Your task to perform on an android device: open app "Google Sheets" (install if not already installed) Image 0: 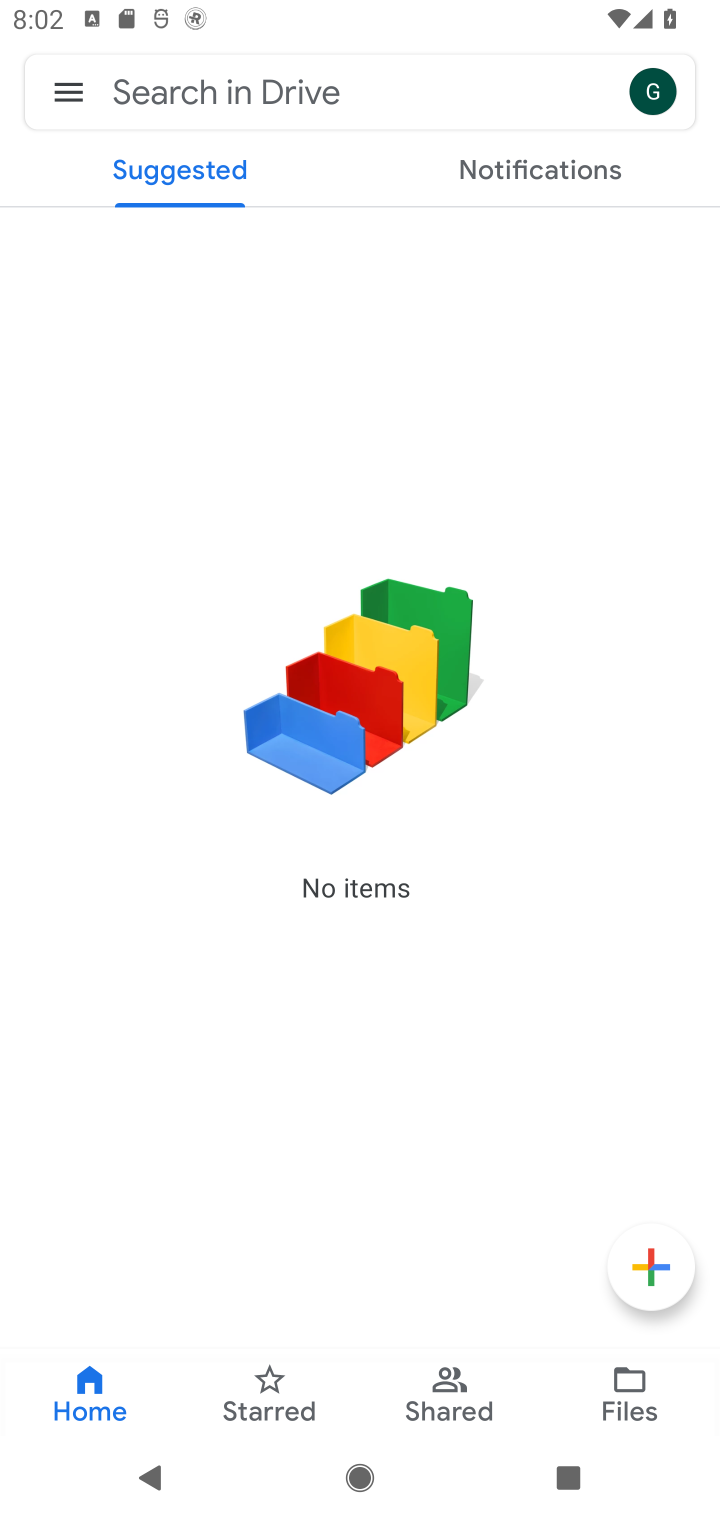
Step 0: press home button
Your task to perform on an android device: open app "Google Sheets" (install if not already installed) Image 1: 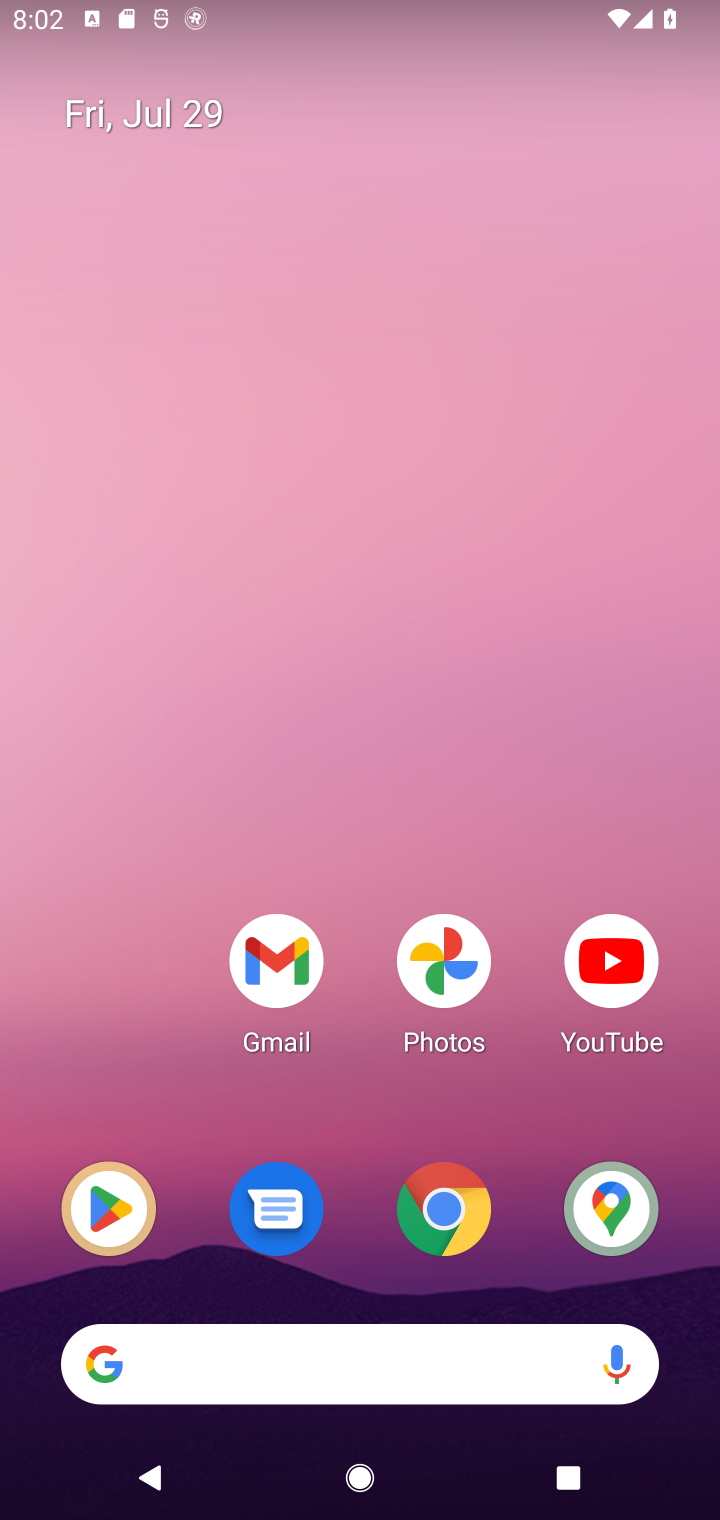
Step 1: click (118, 1210)
Your task to perform on an android device: open app "Google Sheets" (install if not already installed) Image 2: 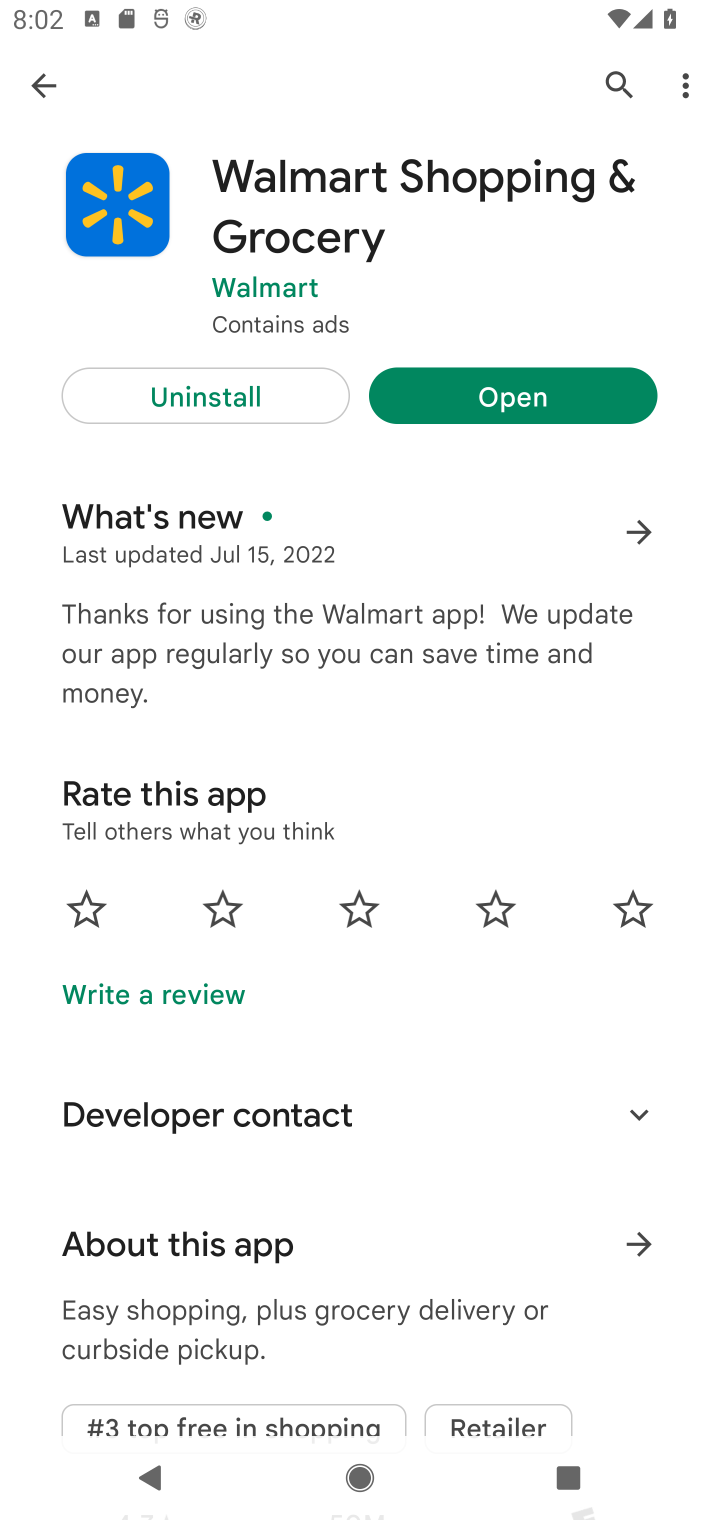
Step 2: click (602, 91)
Your task to perform on an android device: open app "Google Sheets" (install if not already installed) Image 3: 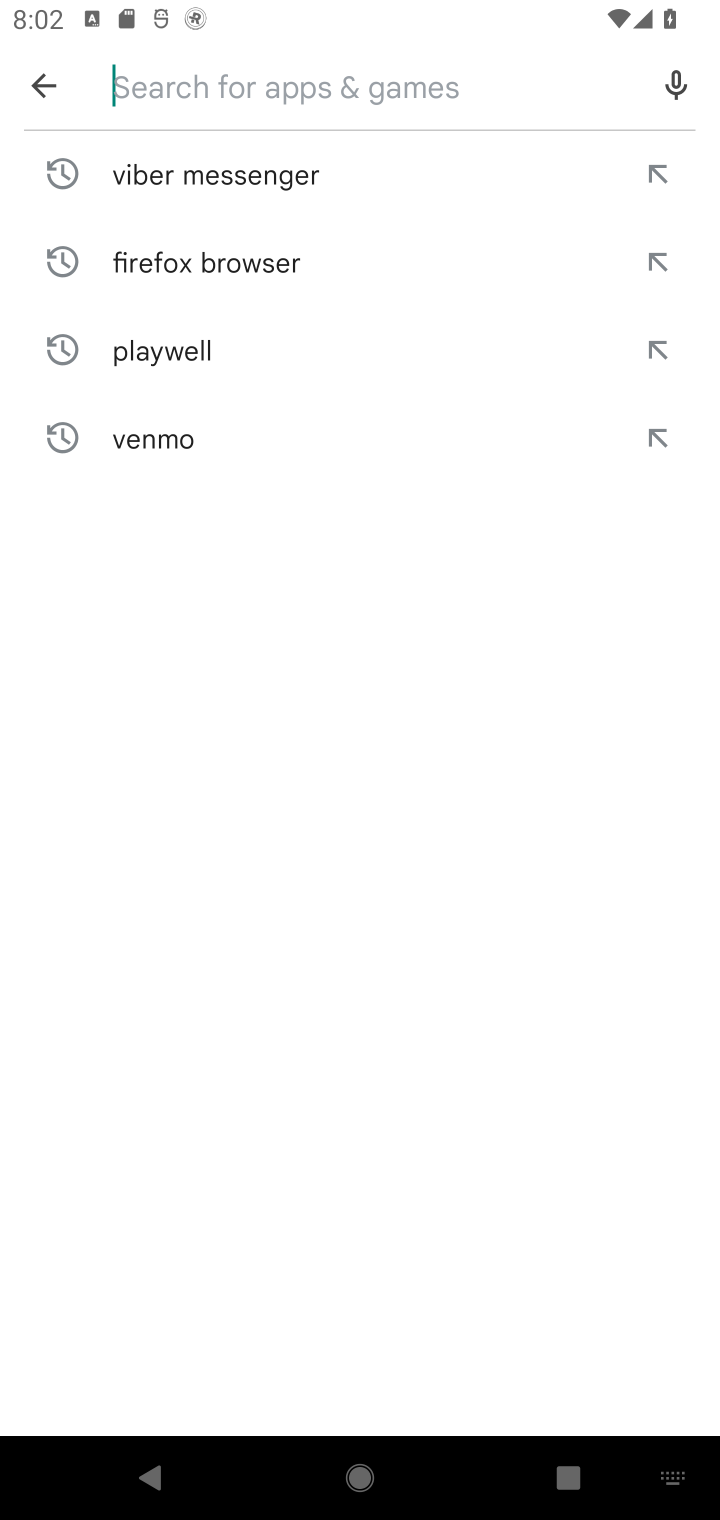
Step 3: click (419, 97)
Your task to perform on an android device: open app "Google Sheets" (install if not already installed) Image 4: 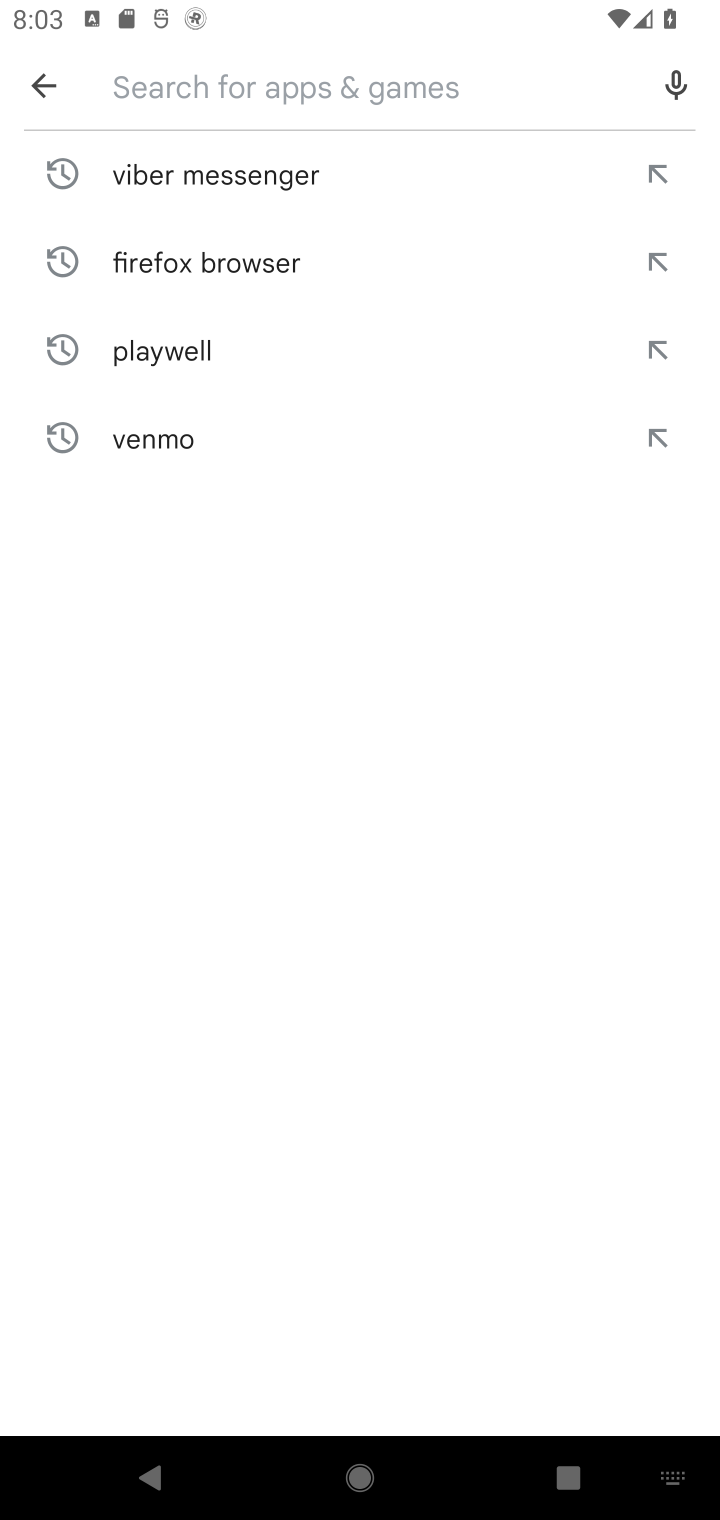
Step 4: type "Google Sheets"
Your task to perform on an android device: open app "Google Sheets" (install if not already installed) Image 5: 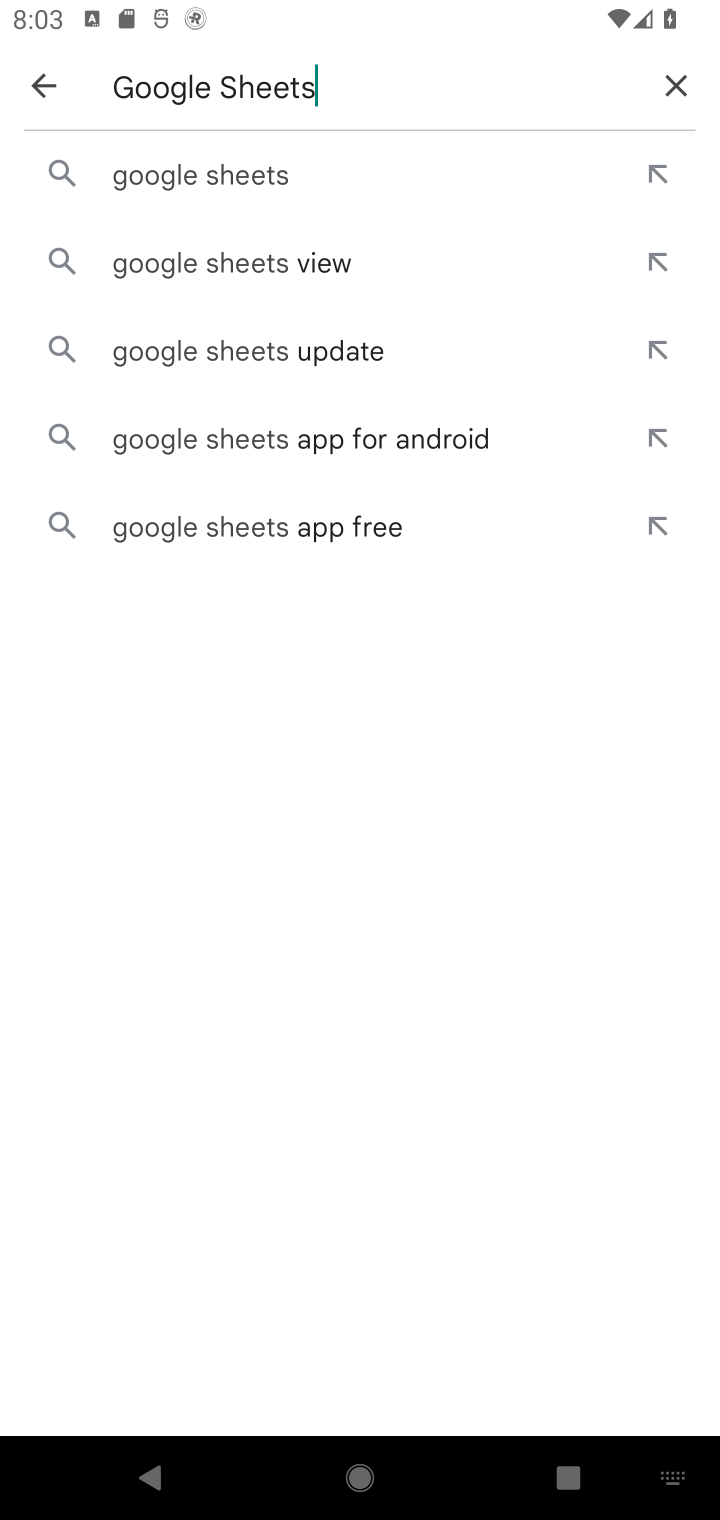
Step 5: click (242, 169)
Your task to perform on an android device: open app "Google Sheets" (install if not already installed) Image 6: 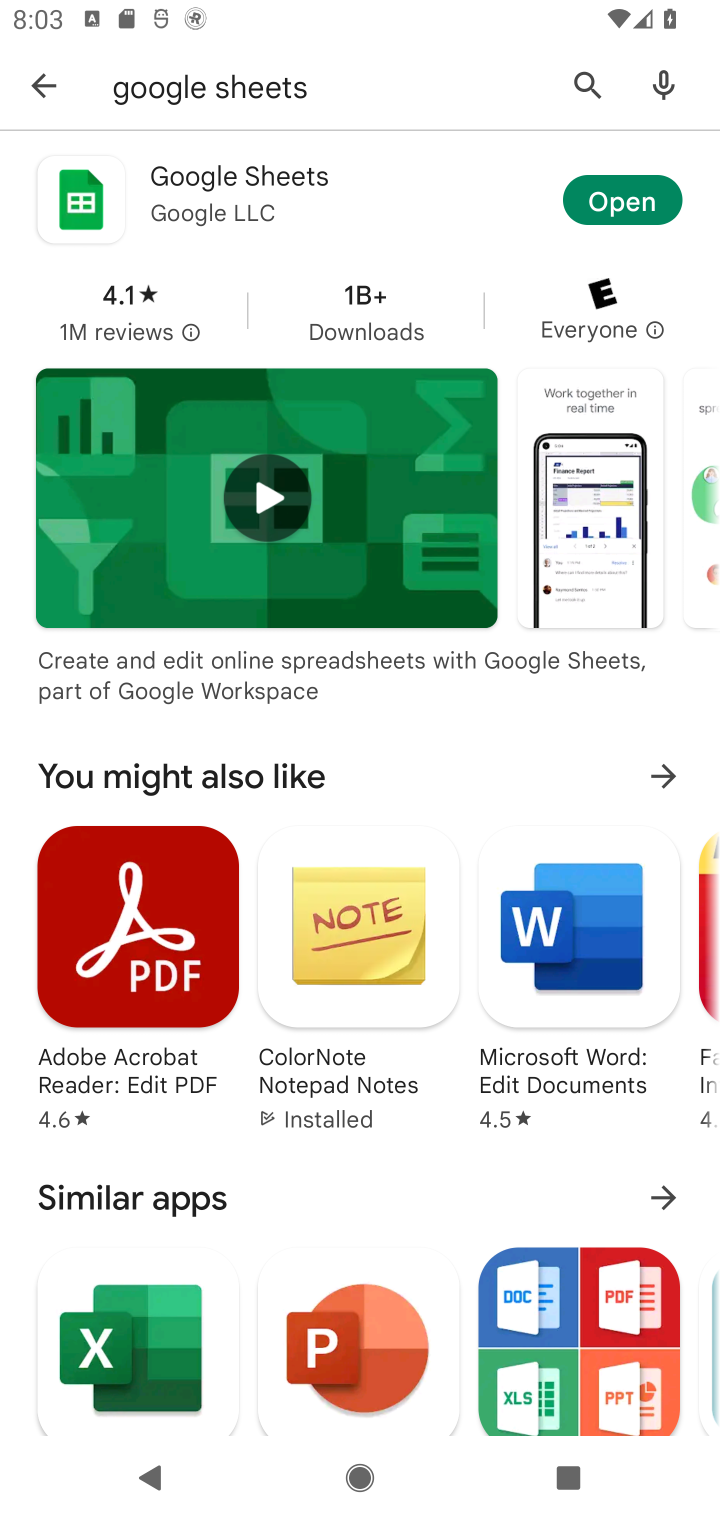
Step 6: click (590, 203)
Your task to perform on an android device: open app "Google Sheets" (install if not already installed) Image 7: 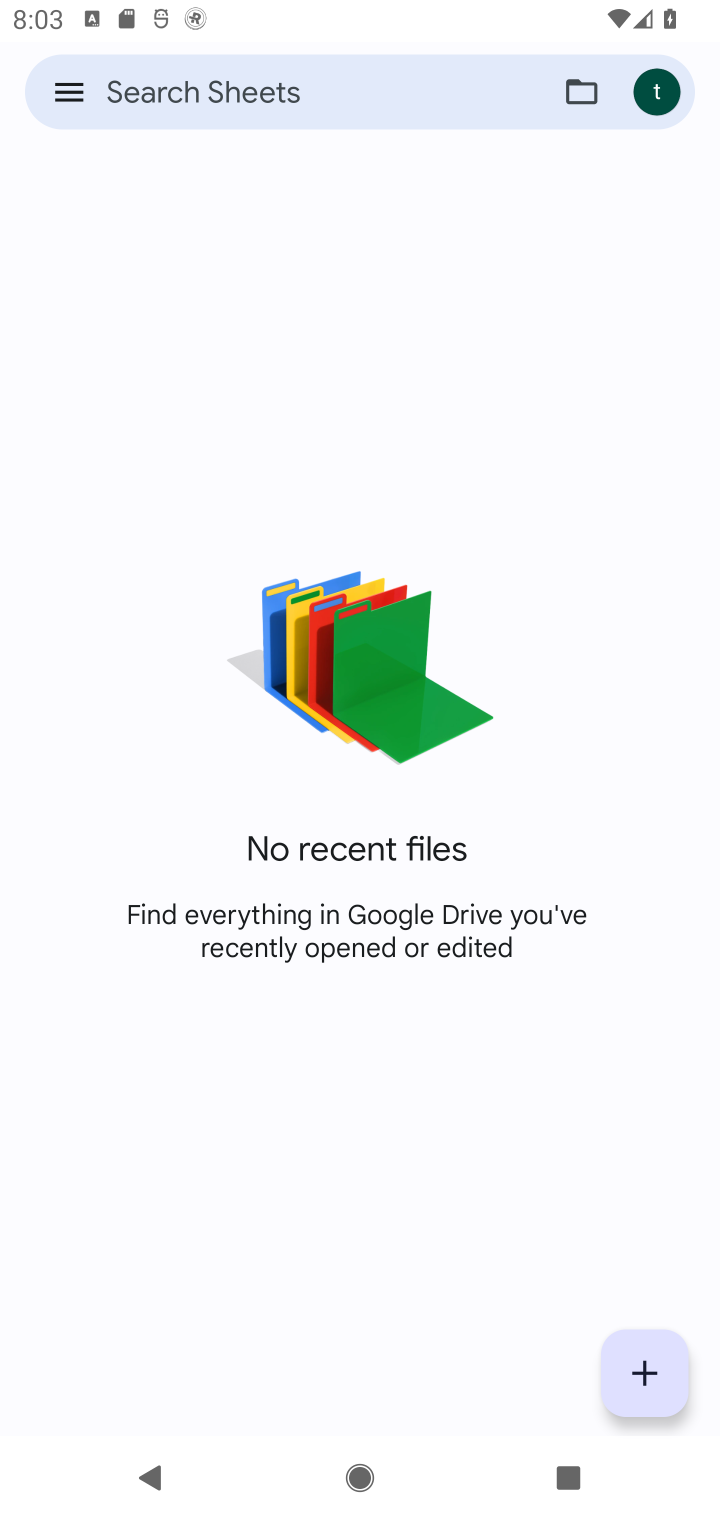
Step 7: task complete